Your task to perform on an android device: turn on location history Image 0: 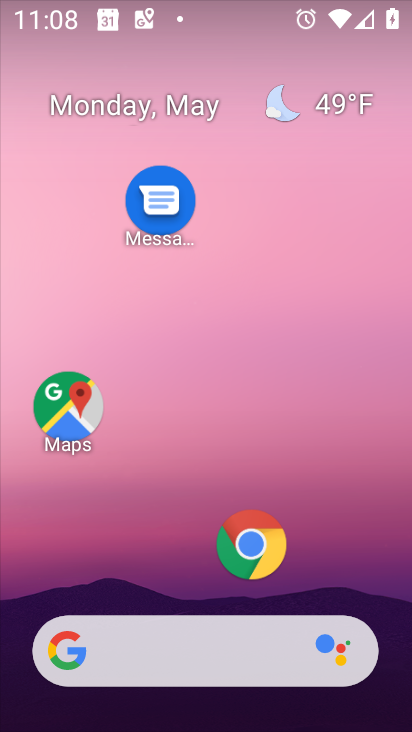
Step 0: drag from (155, 578) to (260, 161)
Your task to perform on an android device: turn on location history Image 1: 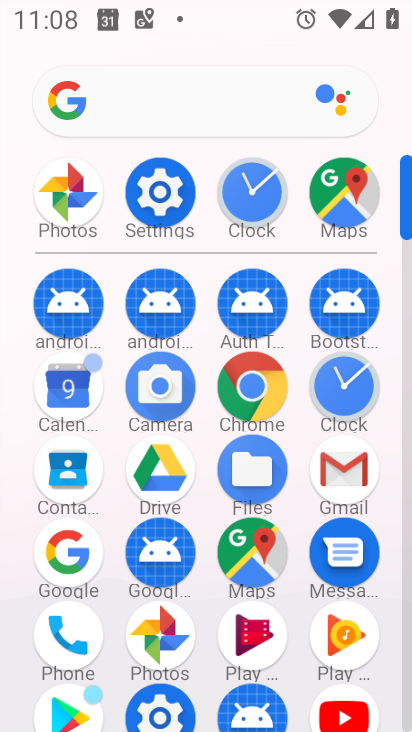
Step 1: click (143, 189)
Your task to perform on an android device: turn on location history Image 2: 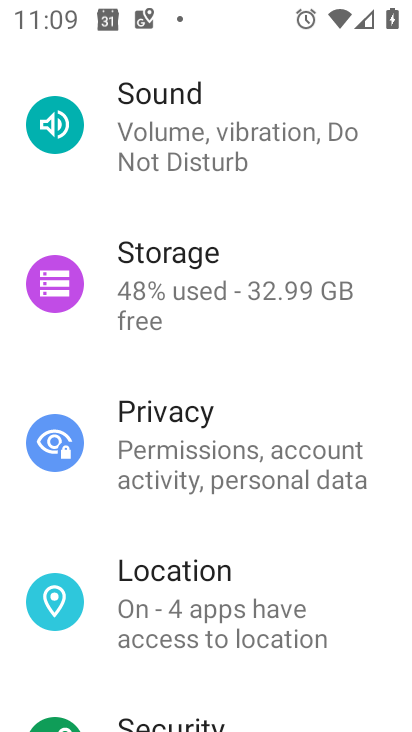
Step 2: click (236, 603)
Your task to perform on an android device: turn on location history Image 3: 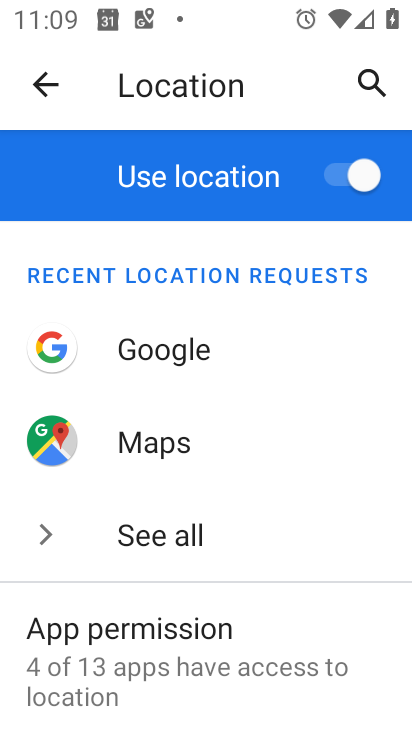
Step 3: drag from (196, 649) to (283, 391)
Your task to perform on an android device: turn on location history Image 4: 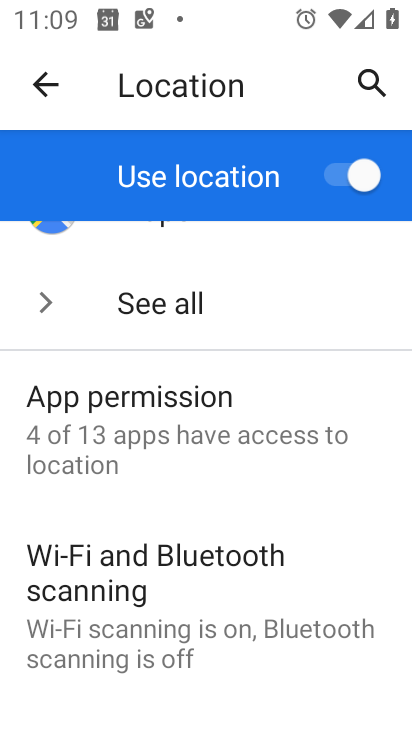
Step 4: drag from (159, 624) to (195, 402)
Your task to perform on an android device: turn on location history Image 5: 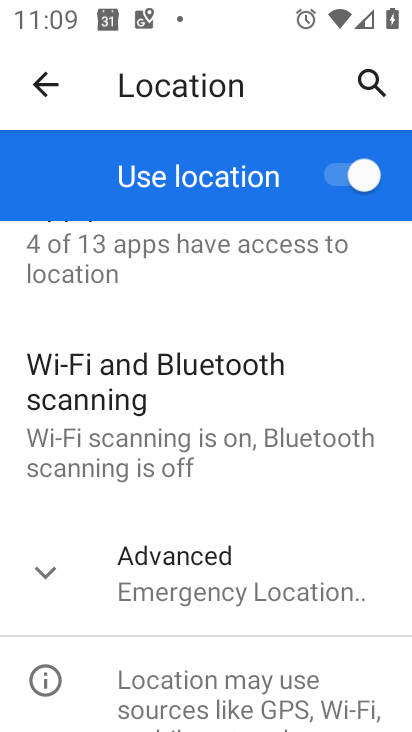
Step 5: click (158, 598)
Your task to perform on an android device: turn on location history Image 6: 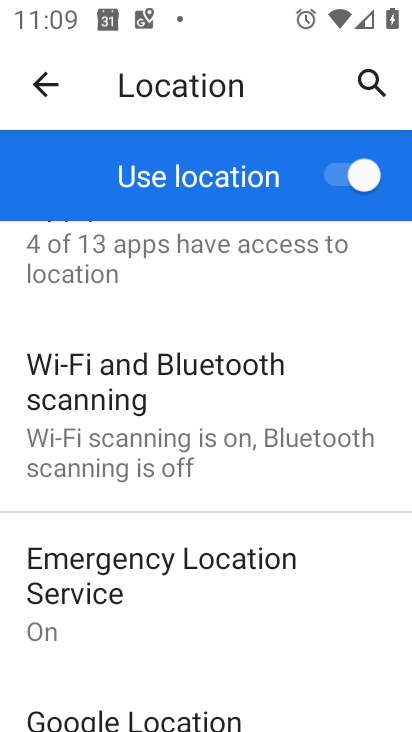
Step 6: drag from (161, 631) to (196, 455)
Your task to perform on an android device: turn on location history Image 7: 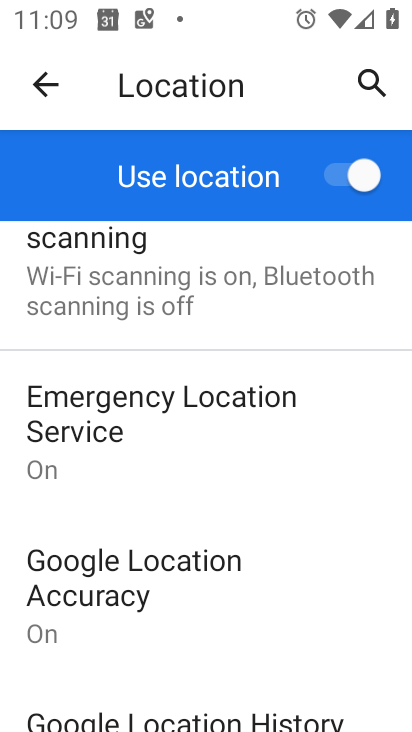
Step 7: drag from (202, 623) to (274, 389)
Your task to perform on an android device: turn on location history Image 8: 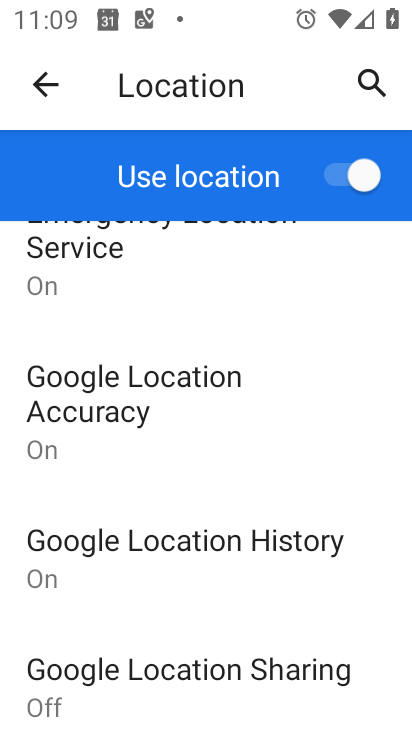
Step 8: click (237, 563)
Your task to perform on an android device: turn on location history Image 9: 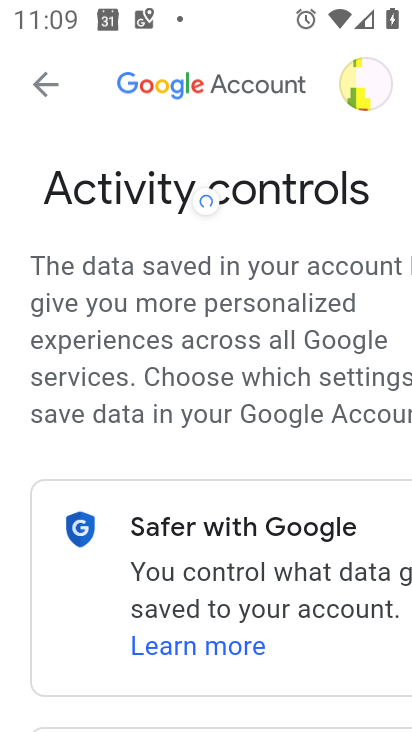
Step 9: task complete